Your task to perform on an android device: Open location settings Image 0: 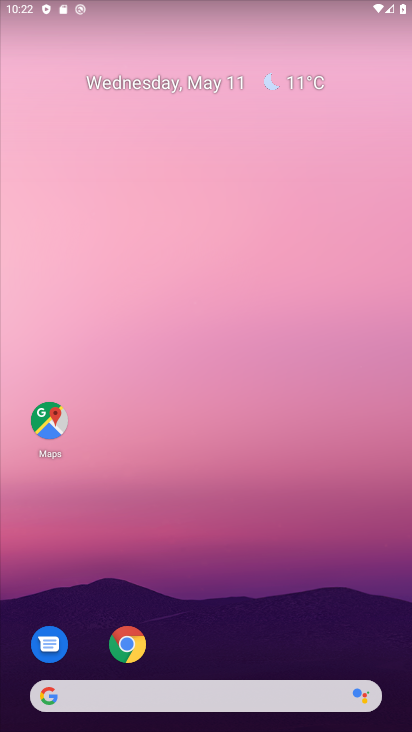
Step 0: drag from (314, 670) to (302, 7)
Your task to perform on an android device: Open location settings Image 1: 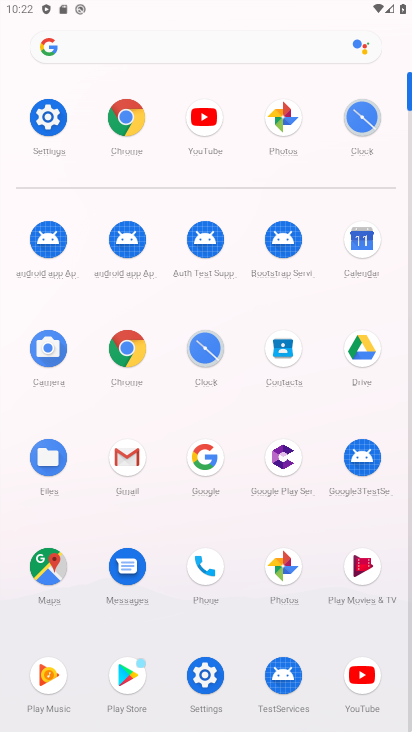
Step 1: click (48, 117)
Your task to perform on an android device: Open location settings Image 2: 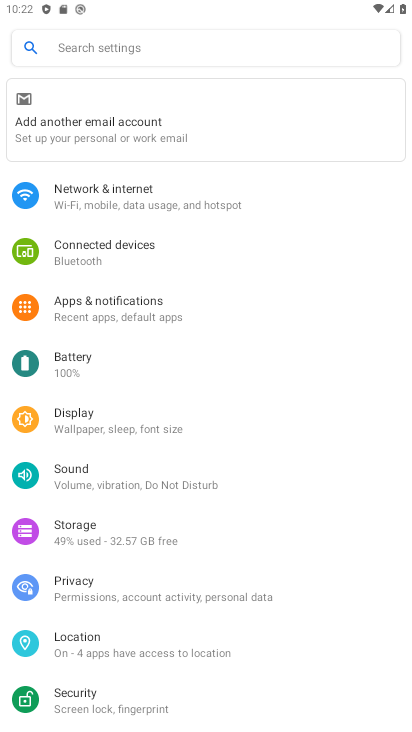
Step 2: click (85, 643)
Your task to perform on an android device: Open location settings Image 3: 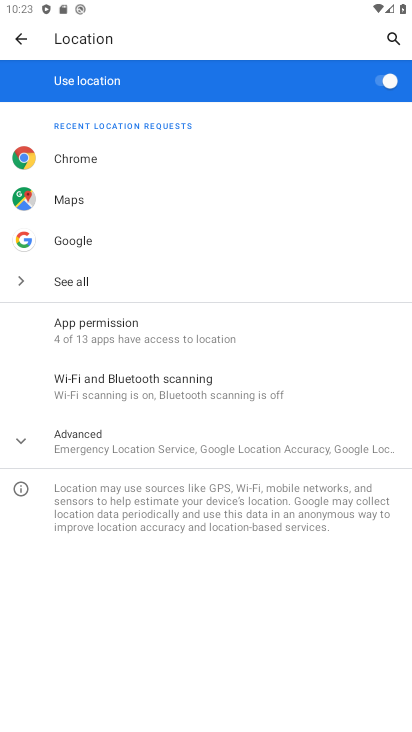
Step 3: task complete